Your task to perform on an android device: Search for a 24-inch cordless drill. Image 0: 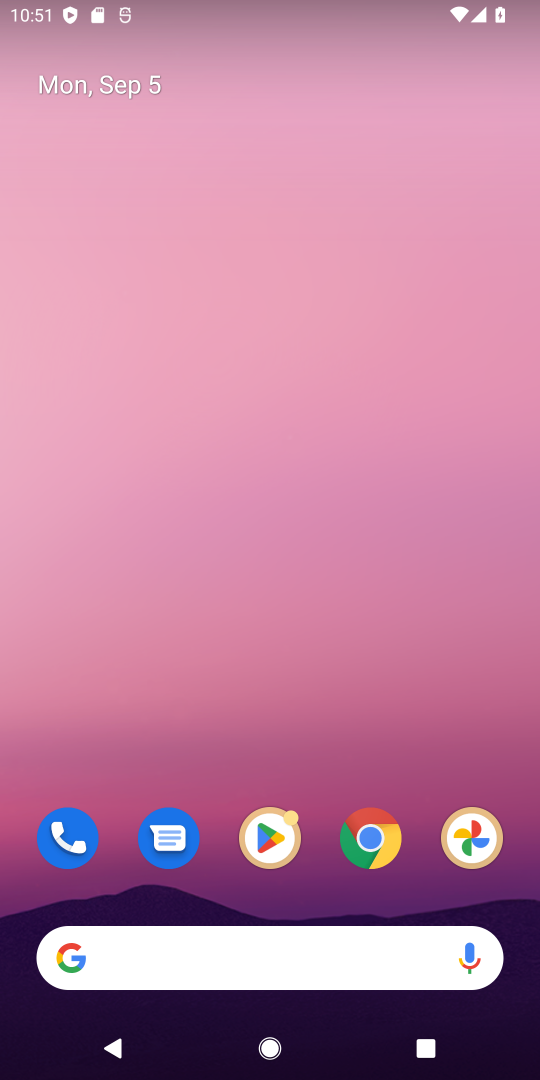
Step 0: click (437, 945)
Your task to perform on an android device: Search for a 24-inch cordless drill. Image 1: 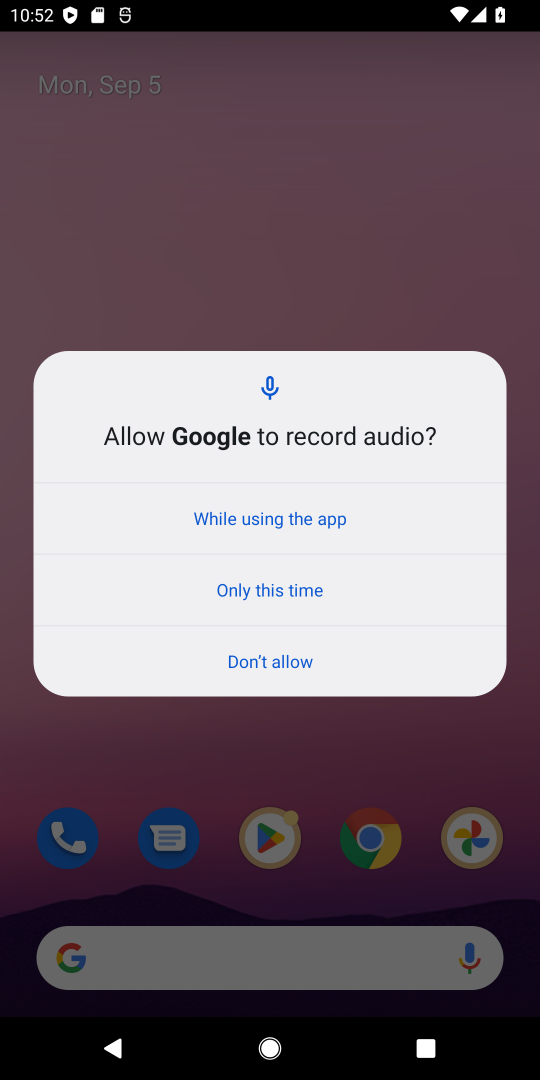
Step 1: click (259, 657)
Your task to perform on an android device: Search for a 24-inch cordless drill. Image 2: 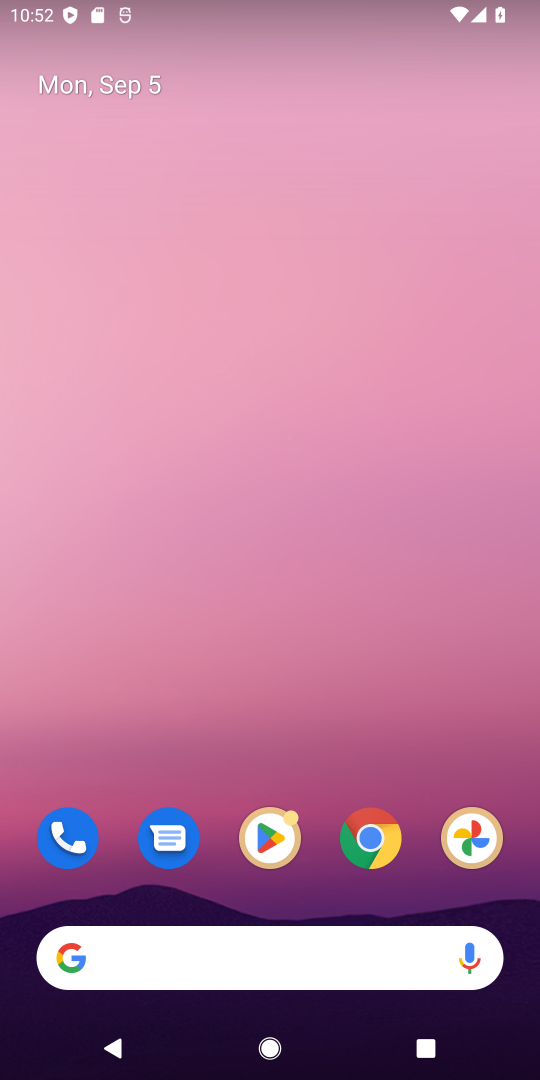
Step 2: click (199, 939)
Your task to perform on an android device: Search for a 24-inch cordless drill. Image 3: 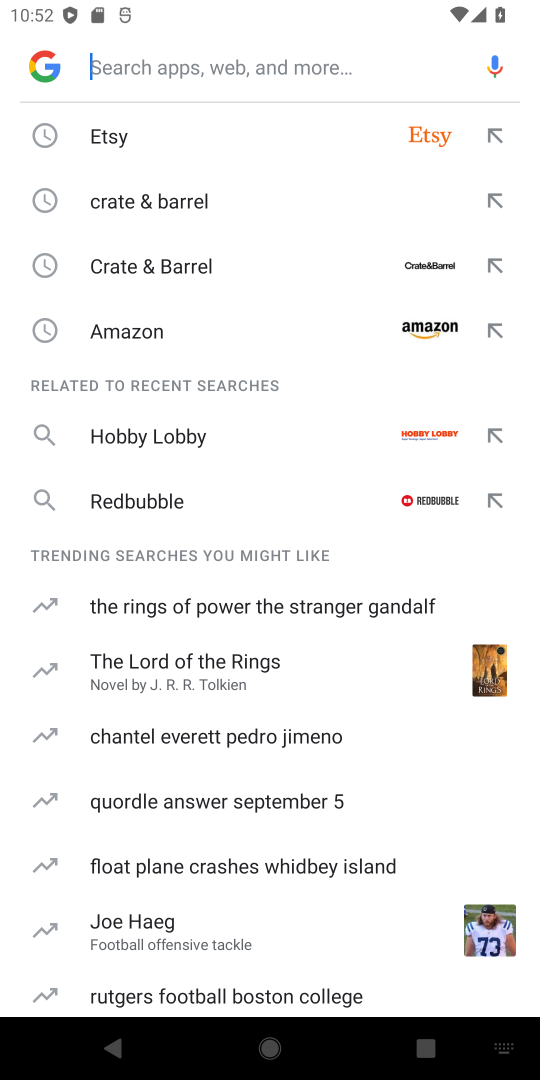
Step 3: type "24-inch cordless drill"
Your task to perform on an android device: Search for a 24-inch cordless drill. Image 4: 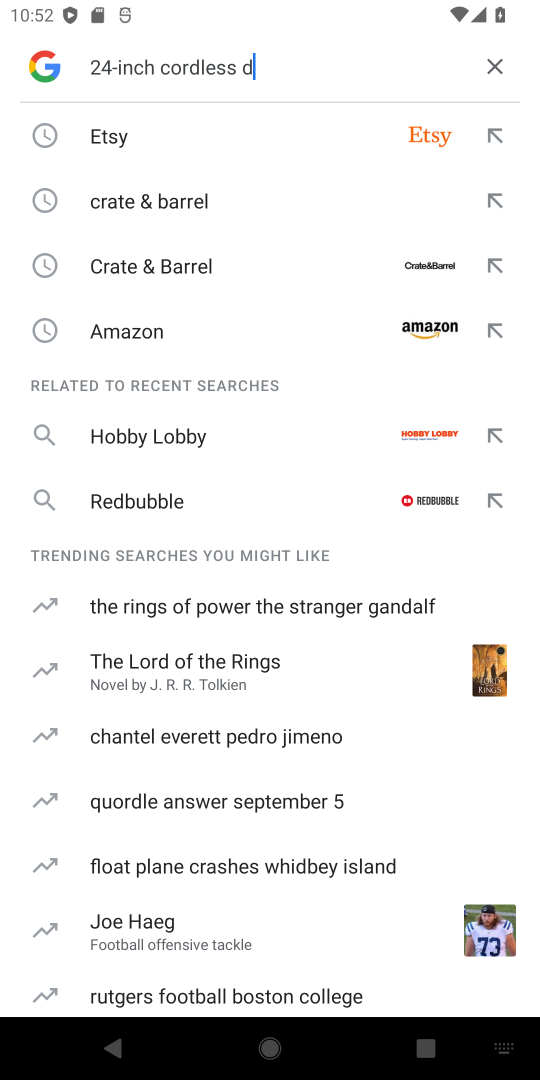
Step 4: type ""
Your task to perform on an android device: Search for a 24-inch cordless drill. Image 5: 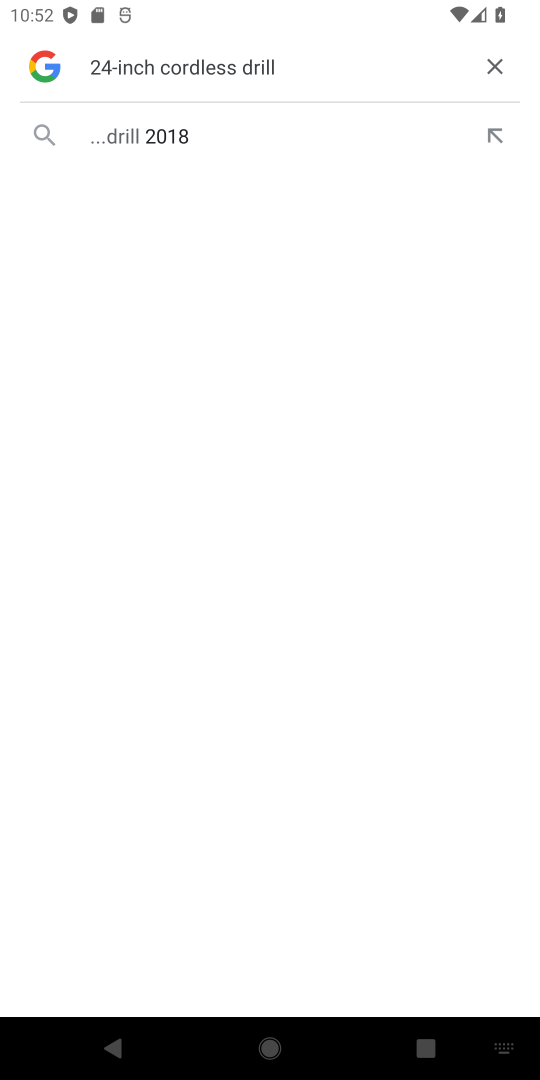
Step 5: click (188, 135)
Your task to perform on an android device: Search for a 24-inch cordless drill. Image 6: 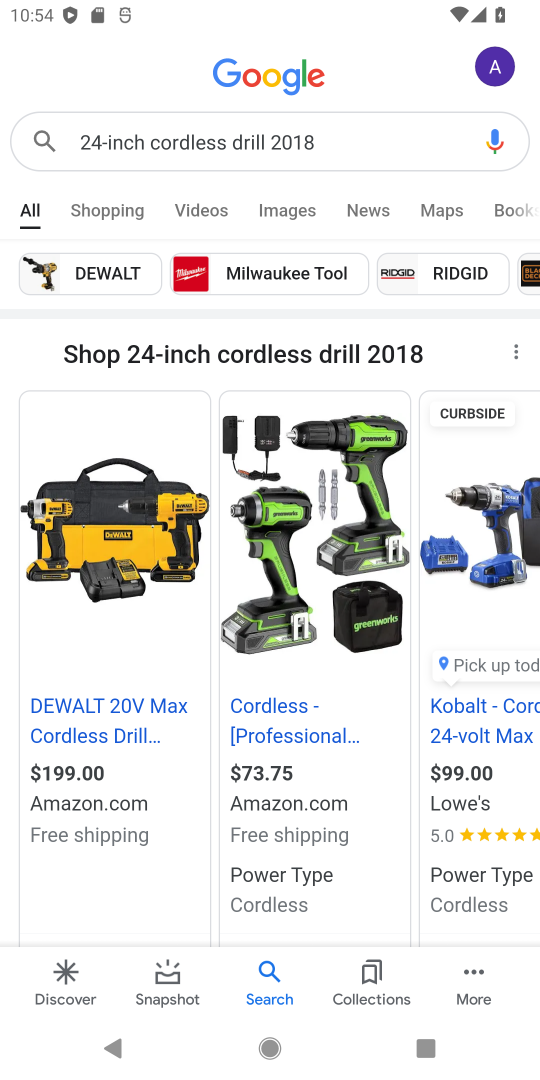
Step 6: task complete